Your task to perform on an android device: What is the news today? Image 0: 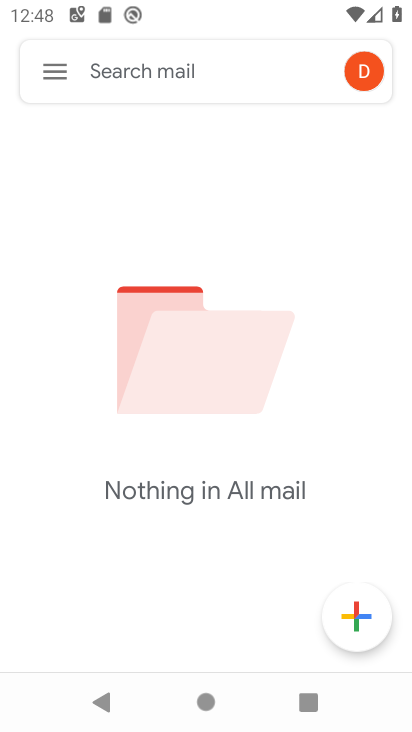
Step 0: press home button
Your task to perform on an android device: What is the news today? Image 1: 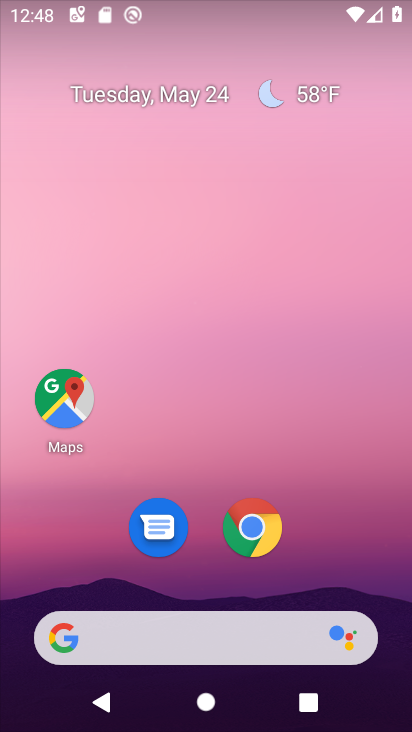
Step 1: drag from (378, 548) to (332, 186)
Your task to perform on an android device: What is the news today? Image 2: 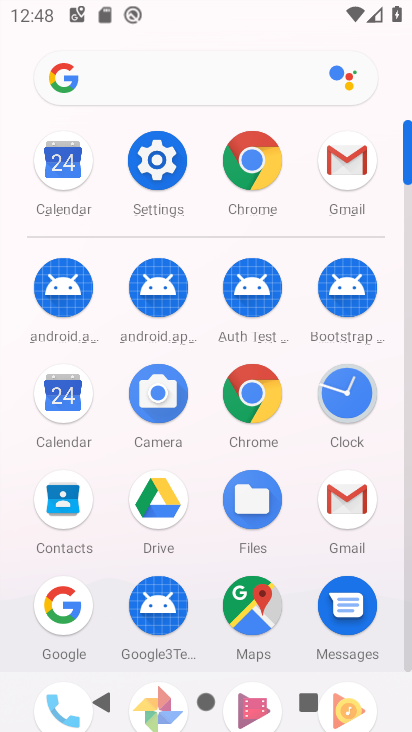
Step 2: click (262, 180)
Your task to perform on an android device: What is the news today? Image 3: 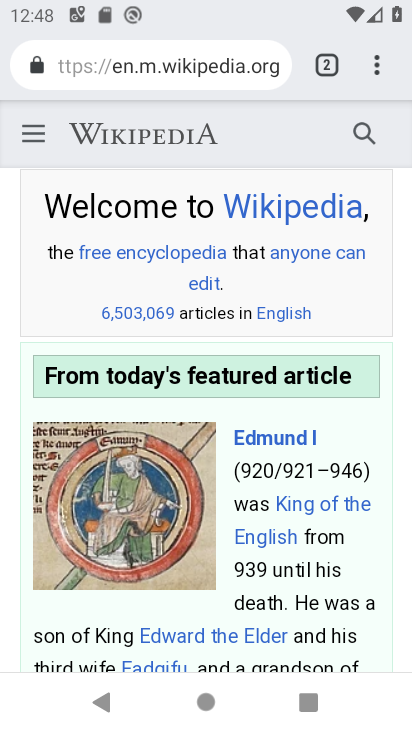
Step 3: click (237, 56)
Your task to perform on an android device: What is the news today? Image 4: 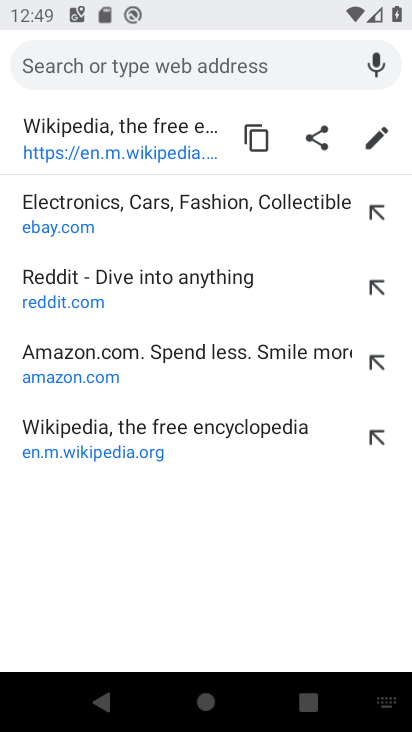
Step 4: type "What is the news today?"
Your task to perform on an android device: What is the news today? Image 5: 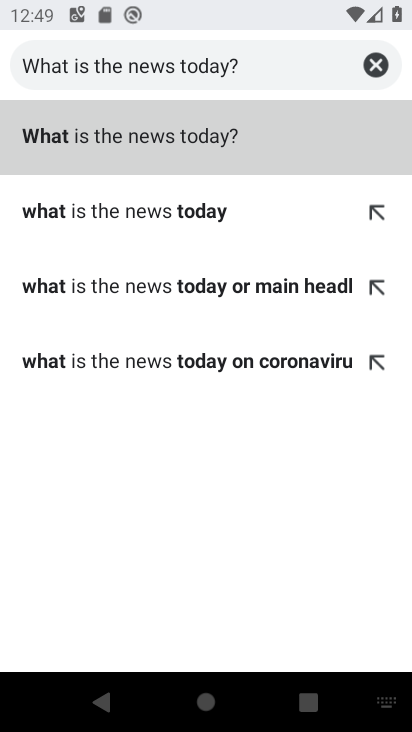
Step 5: click (194, 137)
Your task to perform on an android device: What is the news today? Image 6: 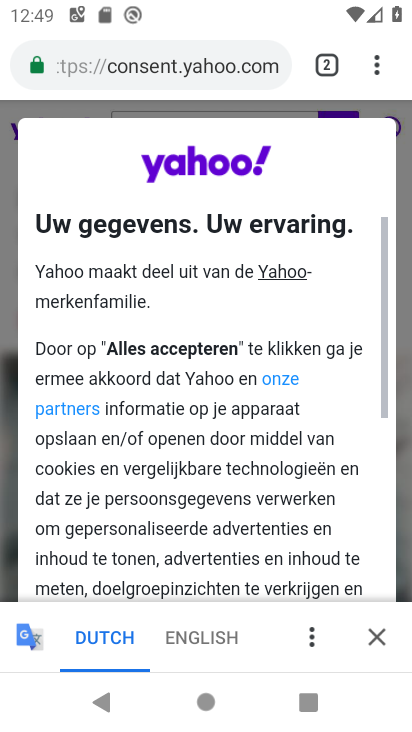
Step 6: click (380, 648)
Your task to perform on an android device: What is the news today? Image 7: 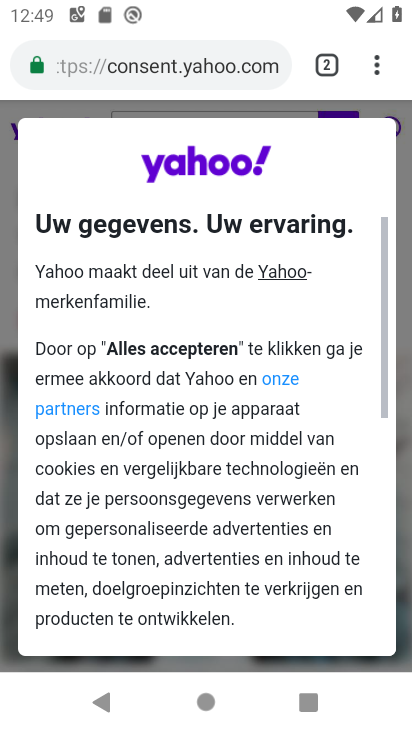
Step 7: drag from (312, 610) to (280, 201)
Your task to perform on an android device: What is the news today? Image 8: 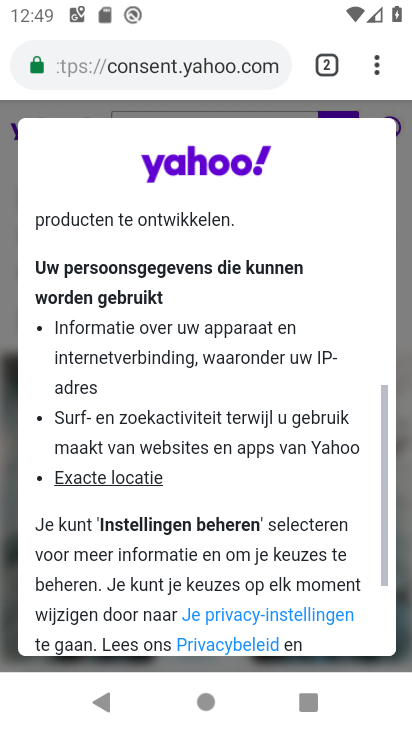
Step 8: drag from (289, 586) to (255, 203)
Your task to perform on an android device: What is the news today? Image 9: 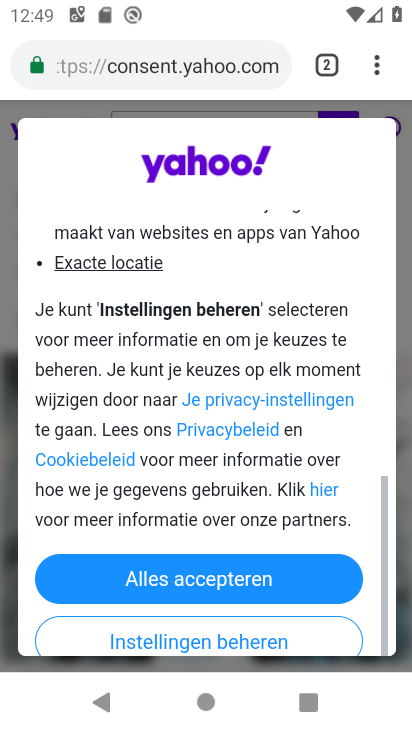
Step 9: click (265, 582)
Your task to perform on an android device: What is the news today? Image 10: 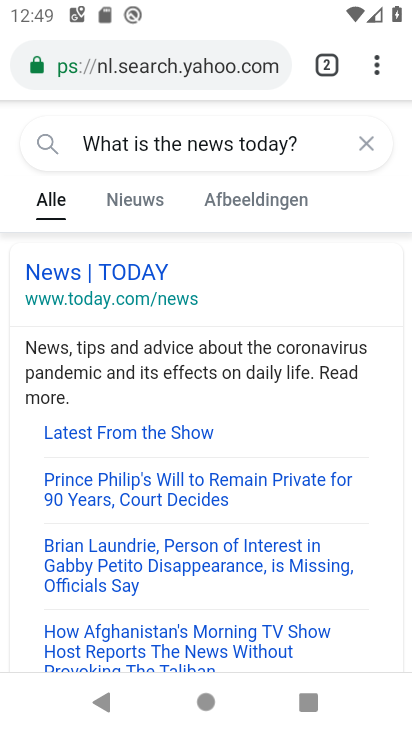
Step 10: click (115, 266)
Your task to perform on an android device: What is the news today? Image 11: 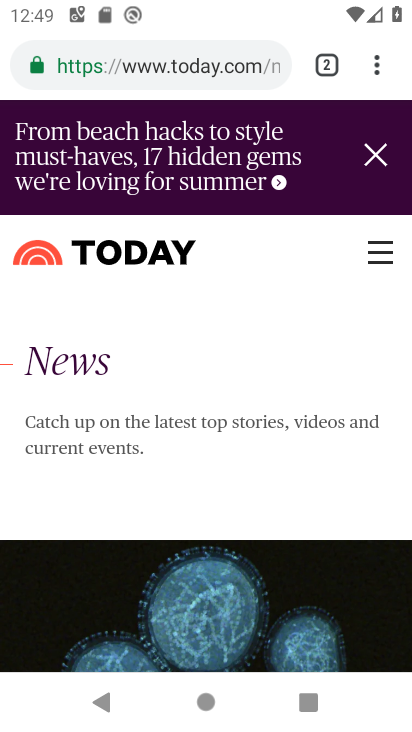
Step 11: task complete